Your task to perform on an android device: turn off sleep mode Image 0: 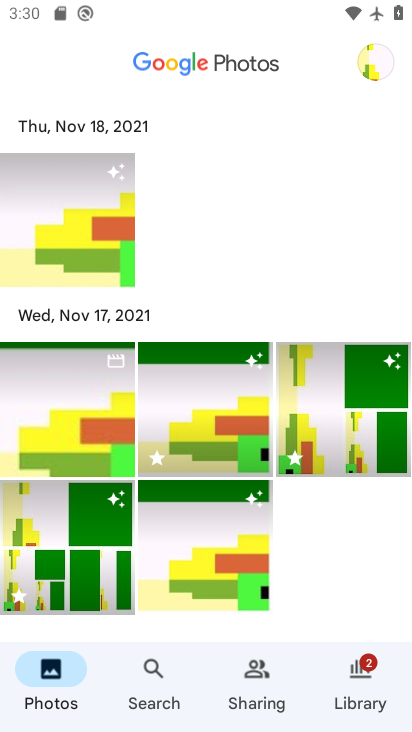
Step 0: press home button
Your task to perform on an android device: turn off sleep mode Image 1: 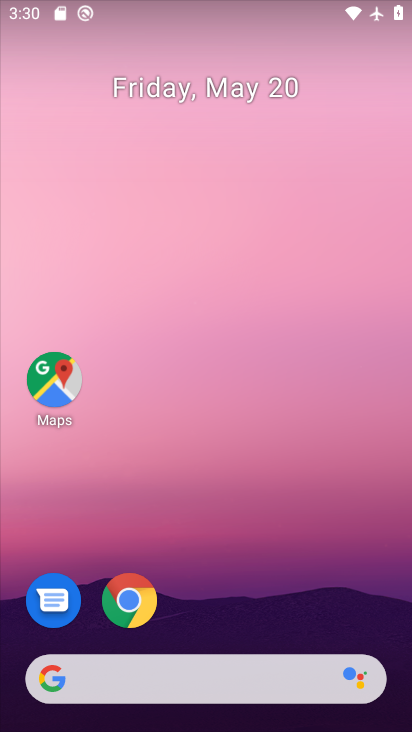
Step 1: drag from (286, 574) to (156, 46)
Your task to perform on an android device: turn off sleep mode Image 2: 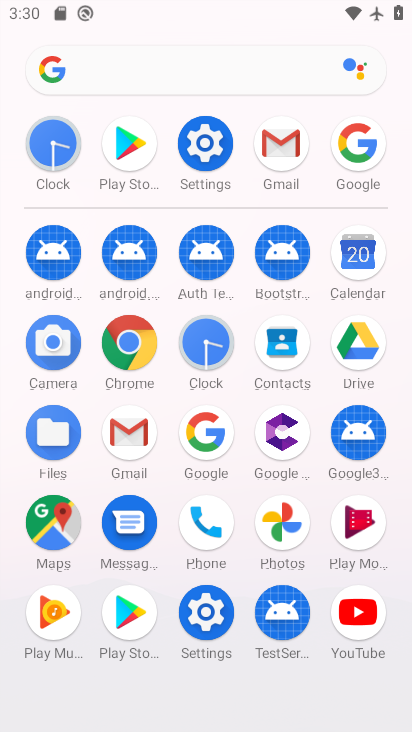
Step 2: click (202, 156)
Your task to perform on an android device: turn off sleep mode Image 3: 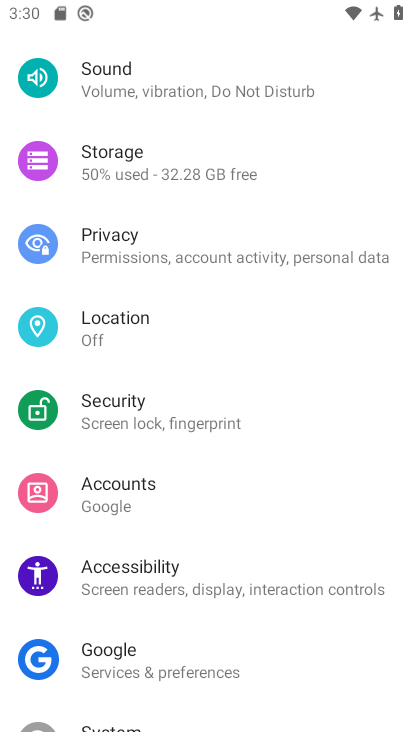
Step 3: drag from (262, 115) to (168, 609)
Your task to perform on an android device: turn off sleep mode Image 4: 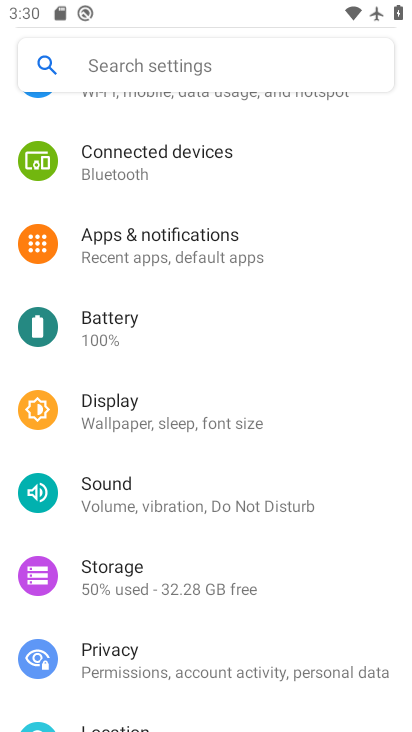
Step 4: click (177, 409)
Your task to perform on an android device: turn off sleep mode Image 5: 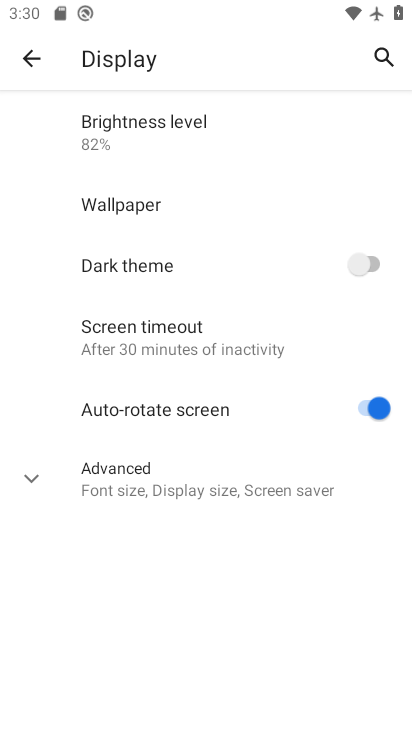
Step 5: task complete